Your task to perform on an android device: toggle priority inbox in the gmail app Image 0: 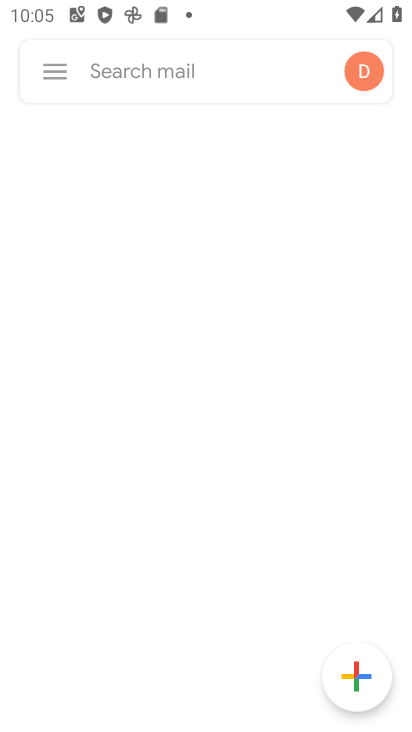
Step 0: press home button
Your task to perform on an android device: toggle priority inbox in the gmail app Image 1: 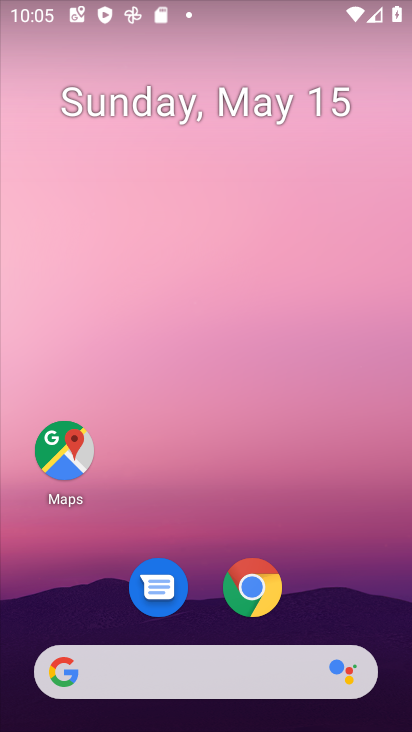
Step 1: drag from (384, 622) to (287, 63)
Your task to perform on an android device: toggle priority inbox in the gmail app Image 2: 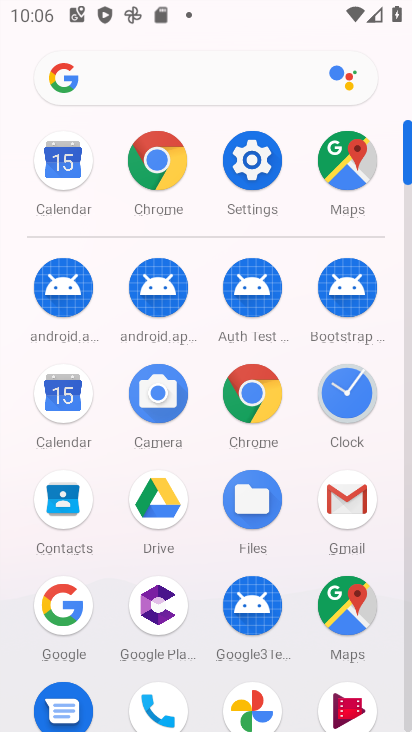
Step 2: click (337, 495)
Your task to perform on an android device: toggle priority inbox in the gmail app Image 3: 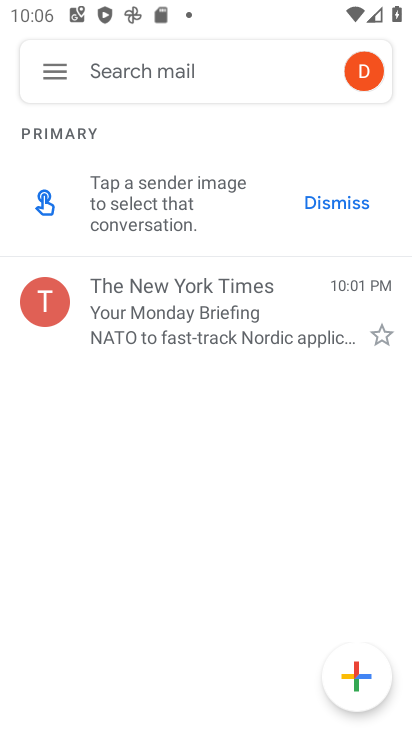
Step 3: click (43, 60)
Your task to perform on an android device: toggle priority inbox in the gmail app Image 4: 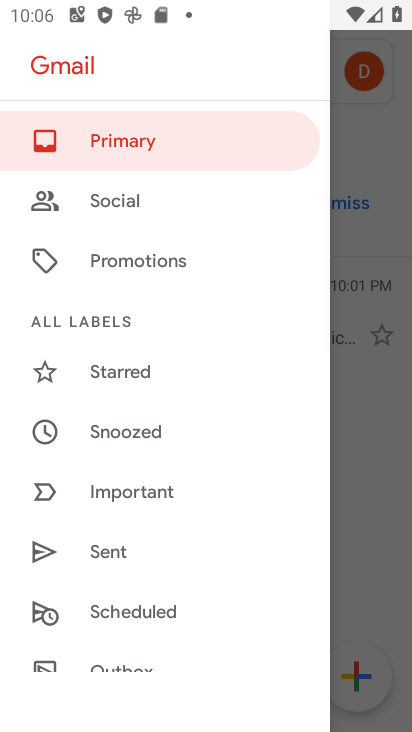
Step 4: drag from (171, 518) to (197, 114)
Your task to perform on an android device: toggle priority inbox in the gmail app Image 5: 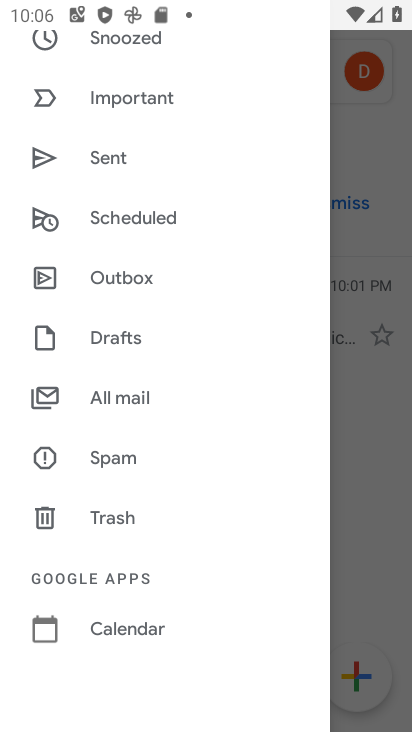
Step 5: drag from (167, 627) to (208, 198)
Your task to perform on an android device: toggle priority inbox in the gmail app Image 6: 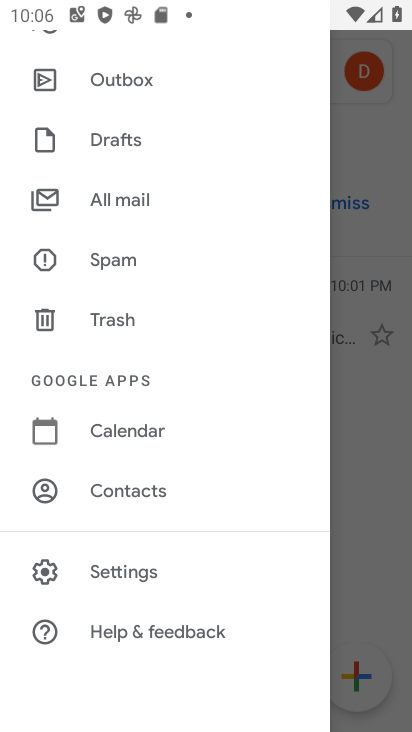
Step 6: click (154, 572)
Your task to perform on an android device: toggle priority inbox in the gmail app Image 7: 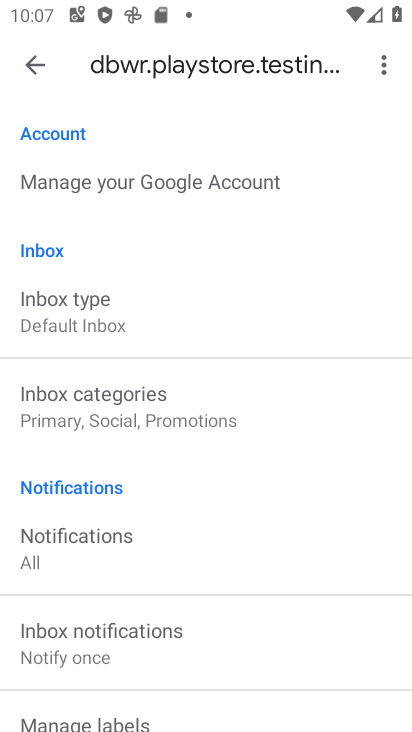
Step 7: click (163, 301)
Your task to perform on an android device: toggle priority inbox in the gmail app Image 8: 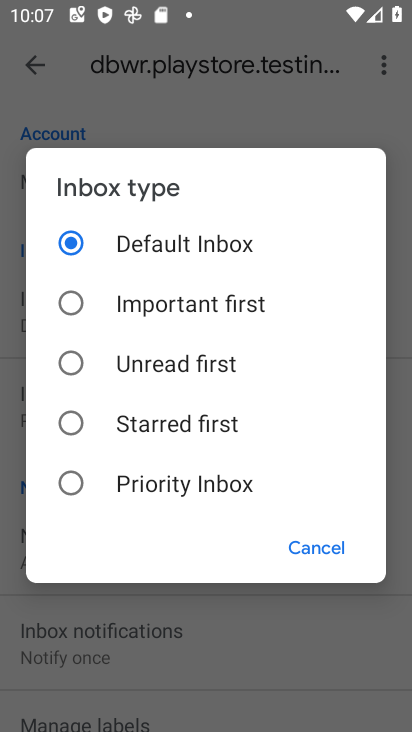
Step 8: click (80, 416)
Your task to perform on an android device: toggle priority inbox in the gmail app Image 9: 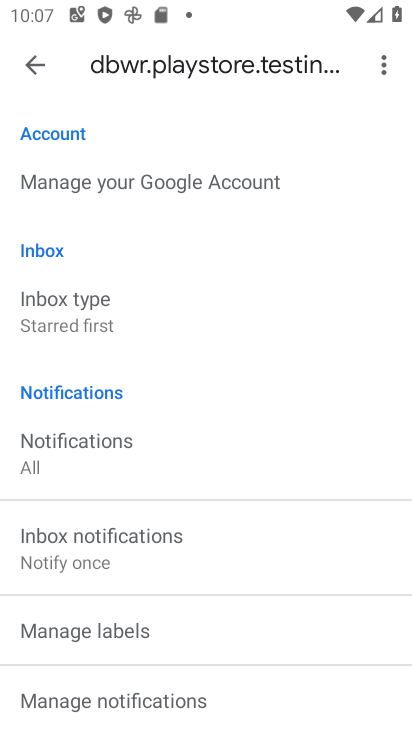
Step 9: task complete